Your task to perform on an android device: turn on sleep mode Image 0: 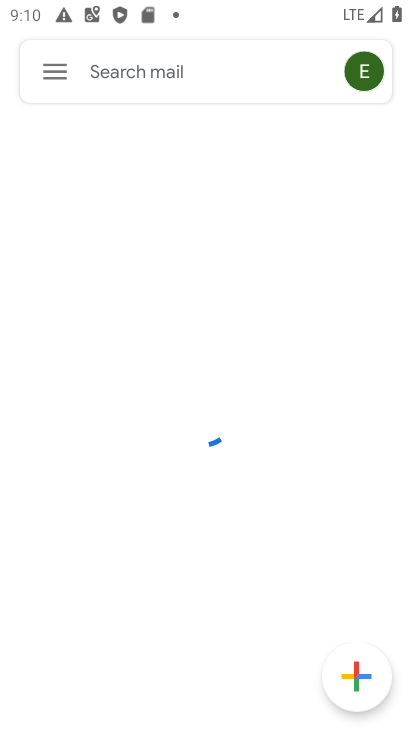
Step 0: press home button
Your task to perform on an android device: turn on sleep mode Image 1: 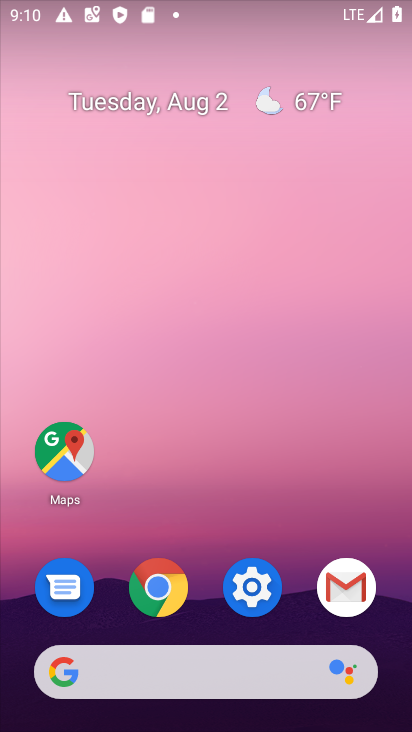
Step 1: click (269, 575)
Your task to perform on an android device: turn on sleep mode Image 2: 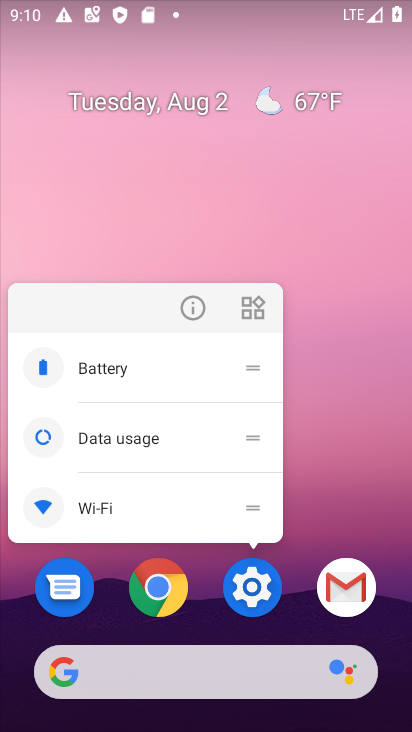
Step 2: click (264, 581)
Your task to perform on an android device: turn on sleep mode Image 3: 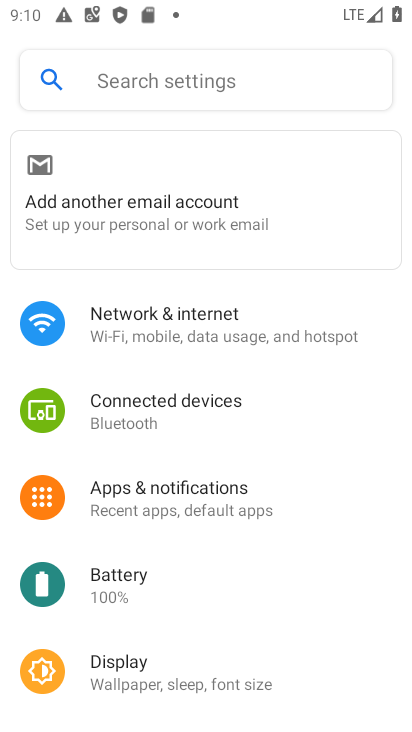
Step 3: click (214, 83)
Your task to perform on an android device: turn on sleep mode Image 4: 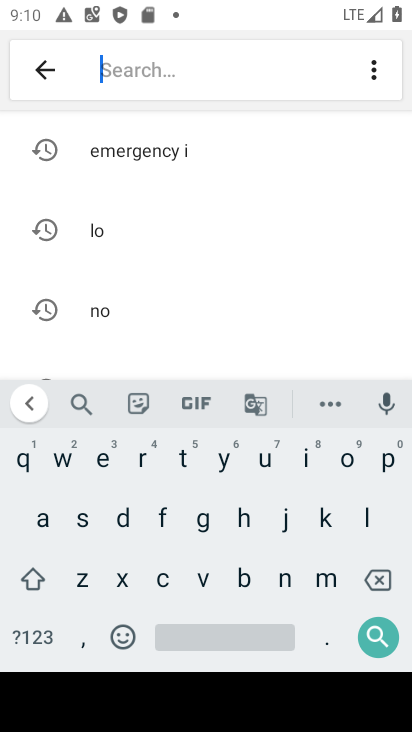
Step 4: click (81, 526)
Your task to perform on an android device: turn on sleep mode Image 5: 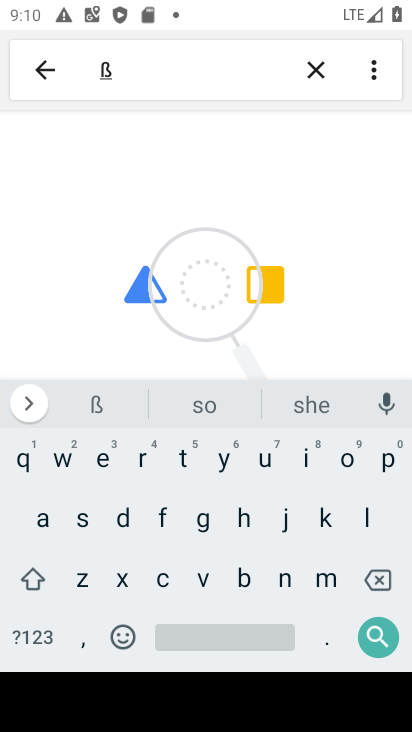
Step 5: click (367, 514)
Your task to perform on an android device: turn on sleep mode Image 6: 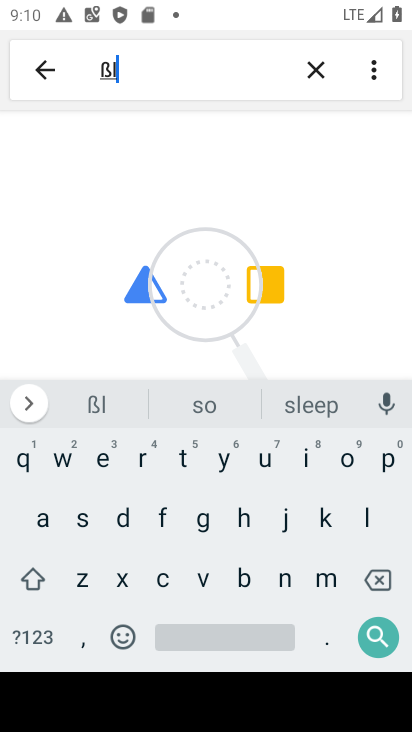
Step 6: click (314, 60)
Your task to perform on an android device: turn on sleep mode Image 7: 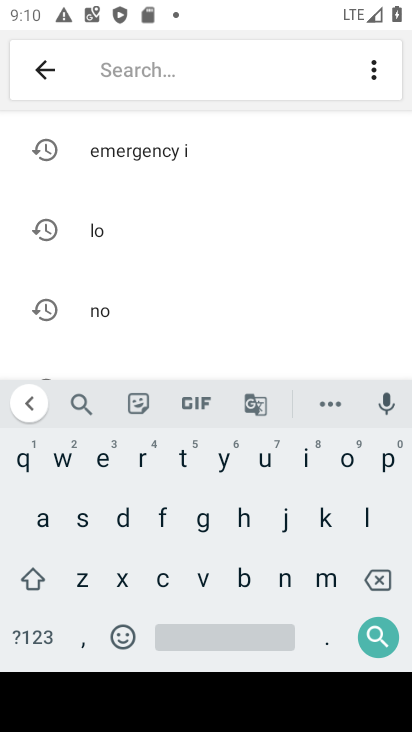
Step 7: click (82, 519)
Your task to perform on an android device: turn on sleep mode Image 8: 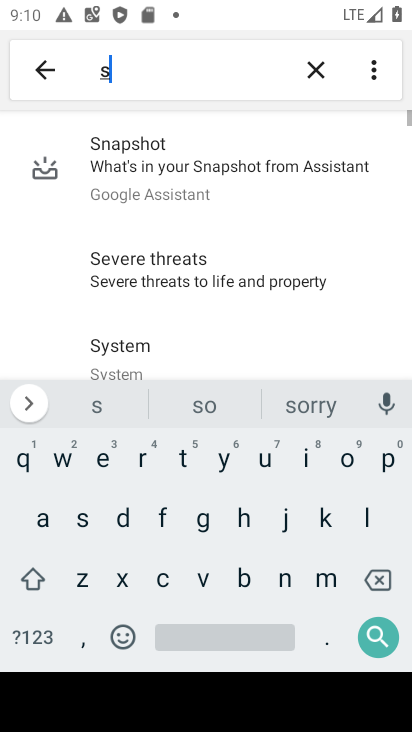
Step 8: click (358, 516)
Your task to perform on an android device: turn on sleep mode Image 9: 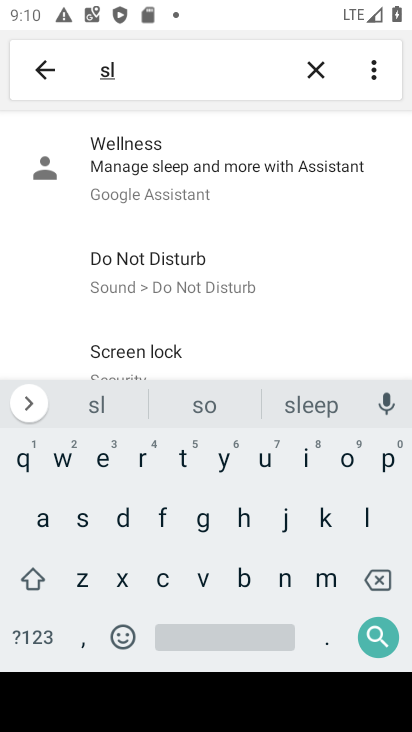
Step 9: click (130, 276)
Your task to perform on an android device: turn on sleep mode Image 10: 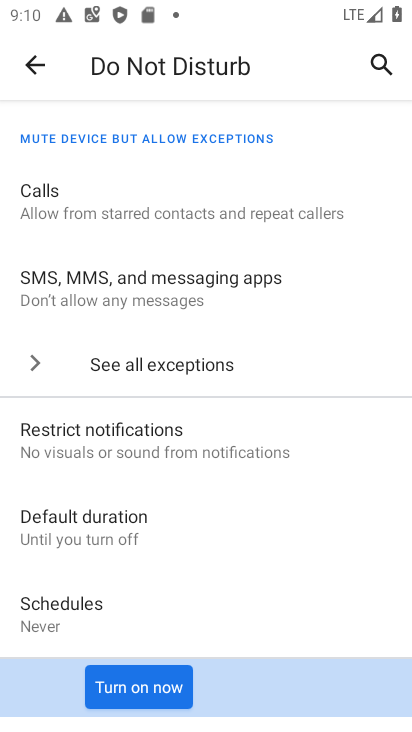
Step 10: click (160, 683)
Your task to perform on an android device: turn on sleep mode Image 11: 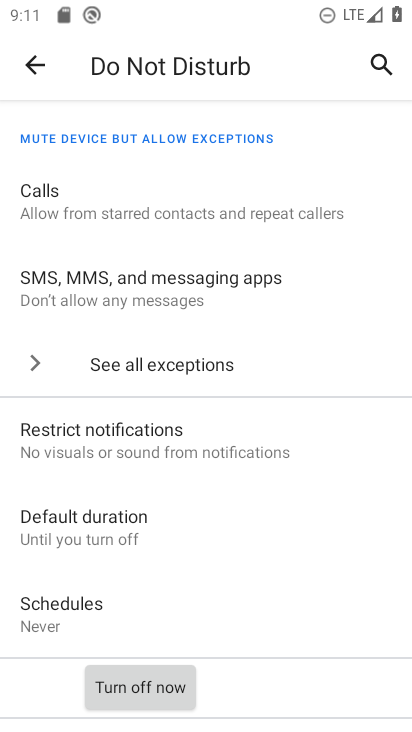
Step 11: task complete